Your task to perform on an android device: delete the emails in spam in the gmail app Image 0: 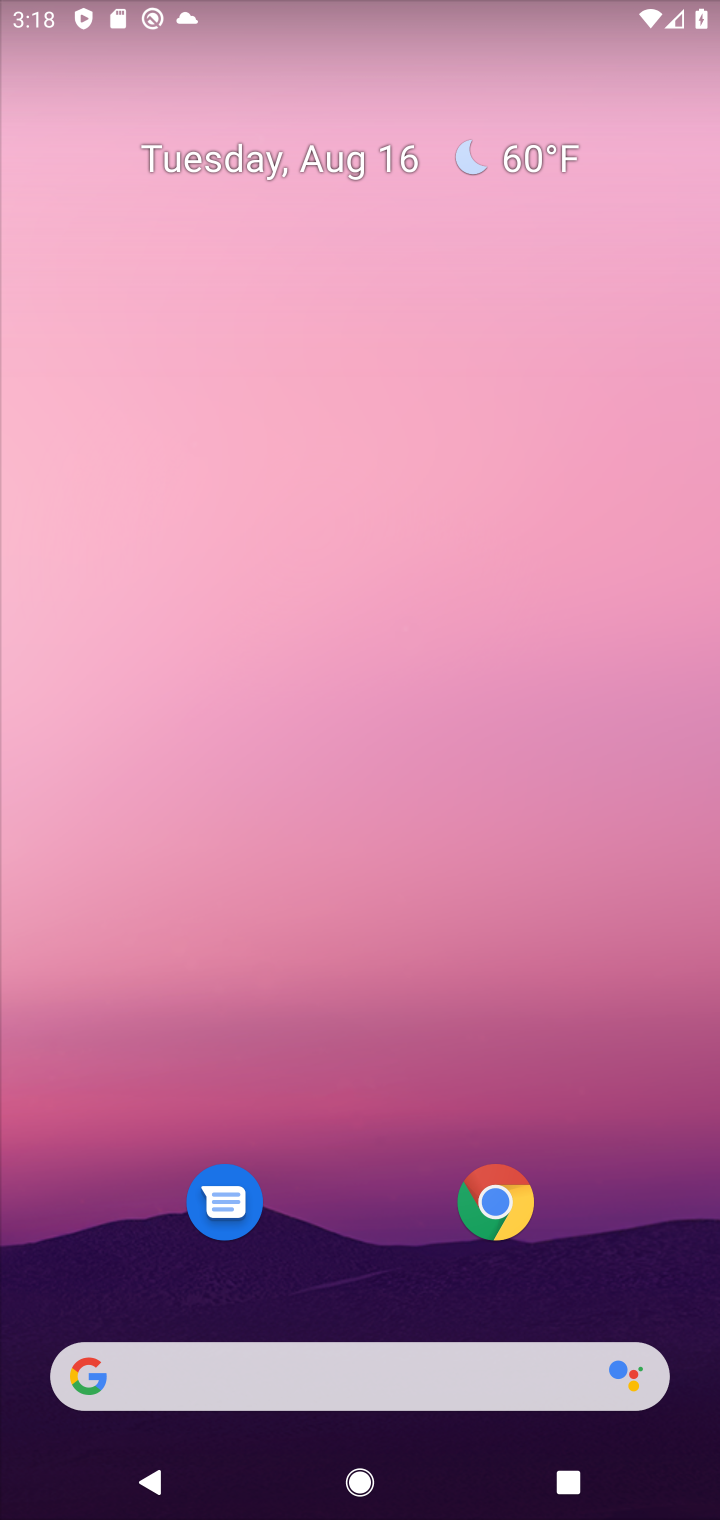
Step 0: drag from (417, 1119) to (497, 258)
Your task to perform on an android device: delete the emails in spam in the gmail app Image 1: 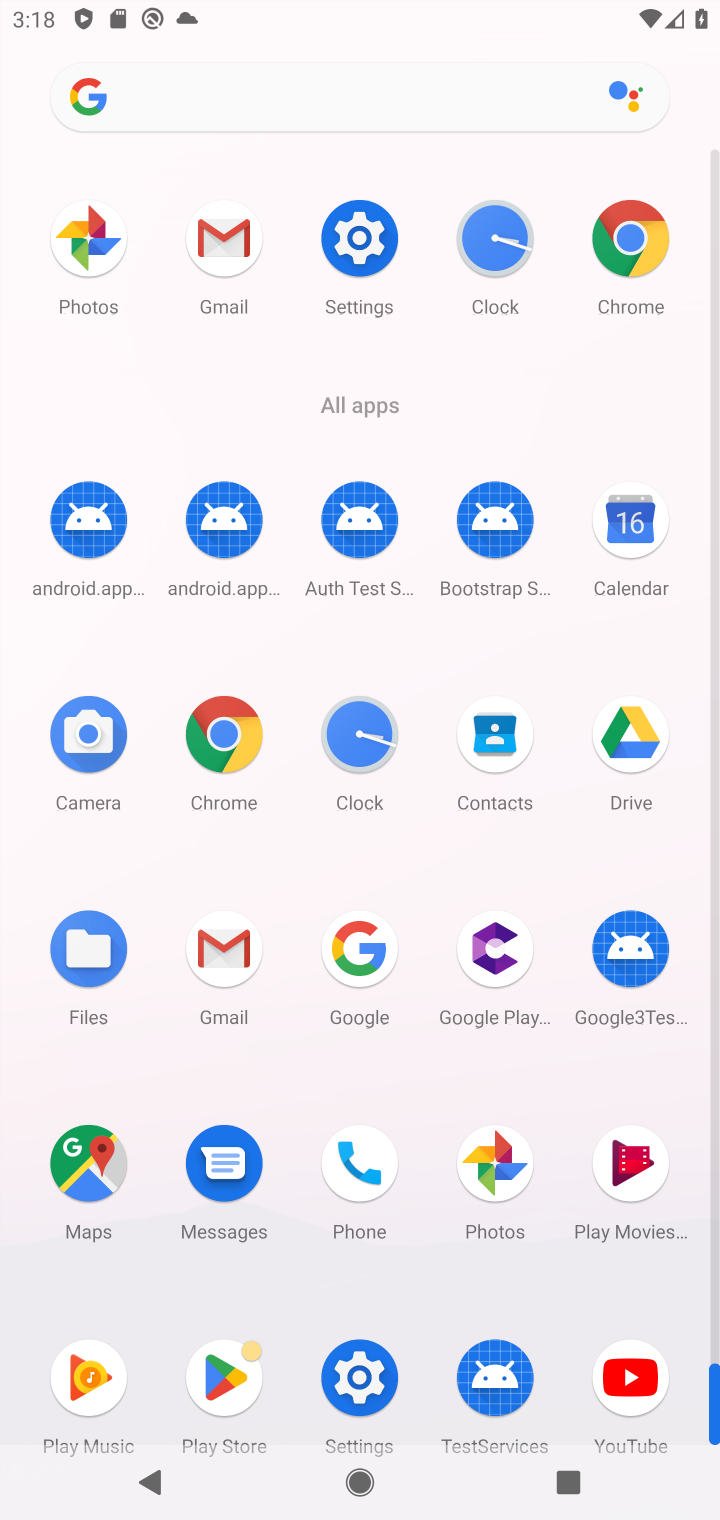
Step 1: click (217, 983)
Your task to perform on an android device: delete the emails in spam in the gmail app Image 2: 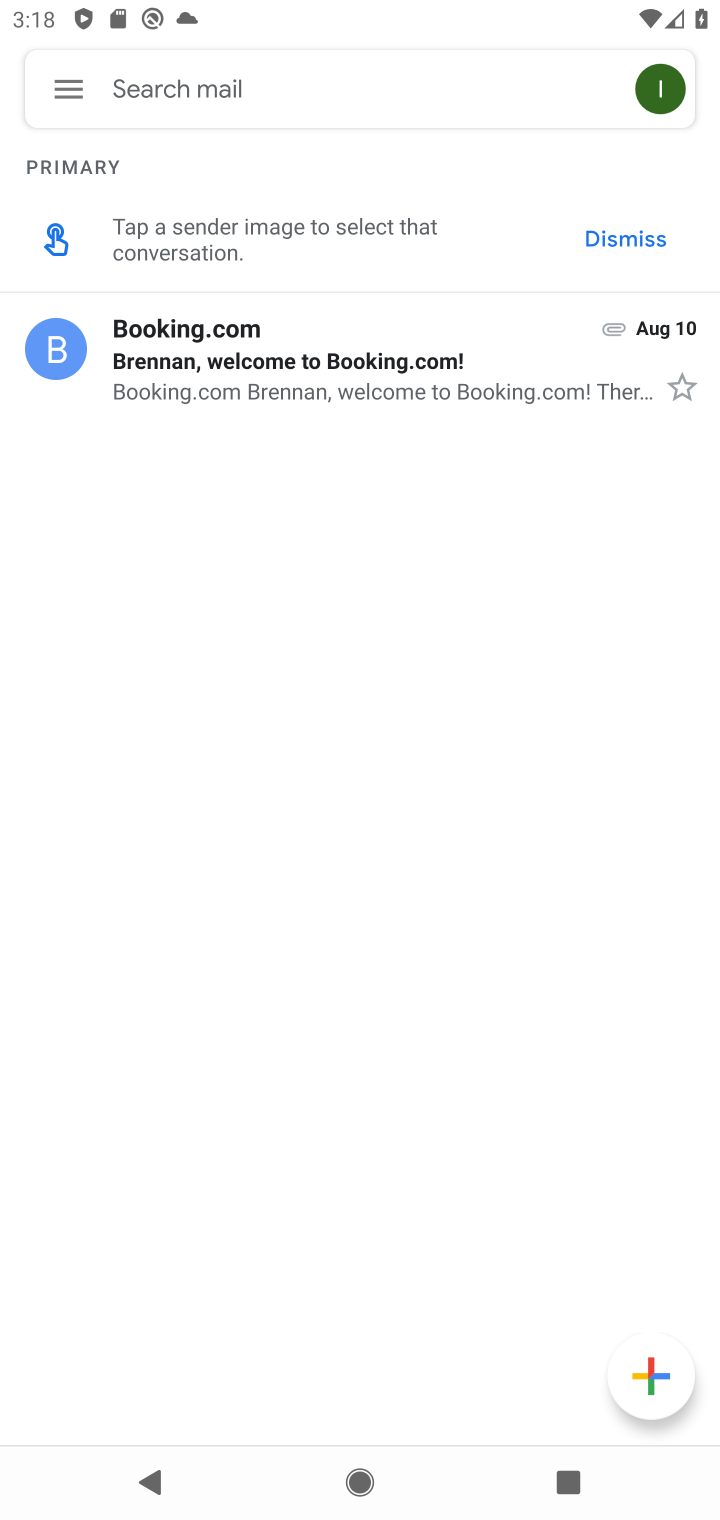
Step 2: click (48, 109)
Your task to perform on an android device: delete the emails in spam in the gmail app Image 3: 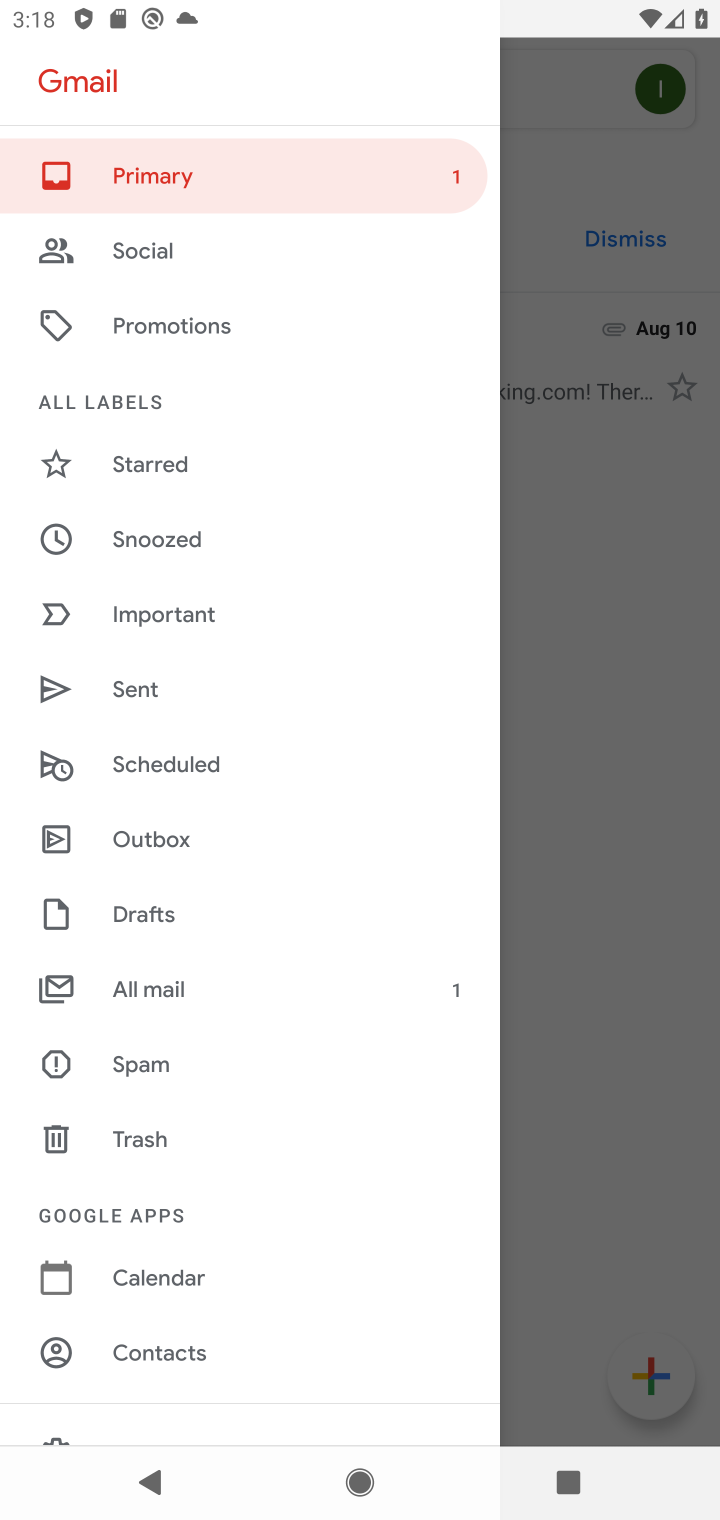
Step 3: click (133, 1064)
Your task to perform on an android device: delete the emails in spam in the gmail app Image 4: 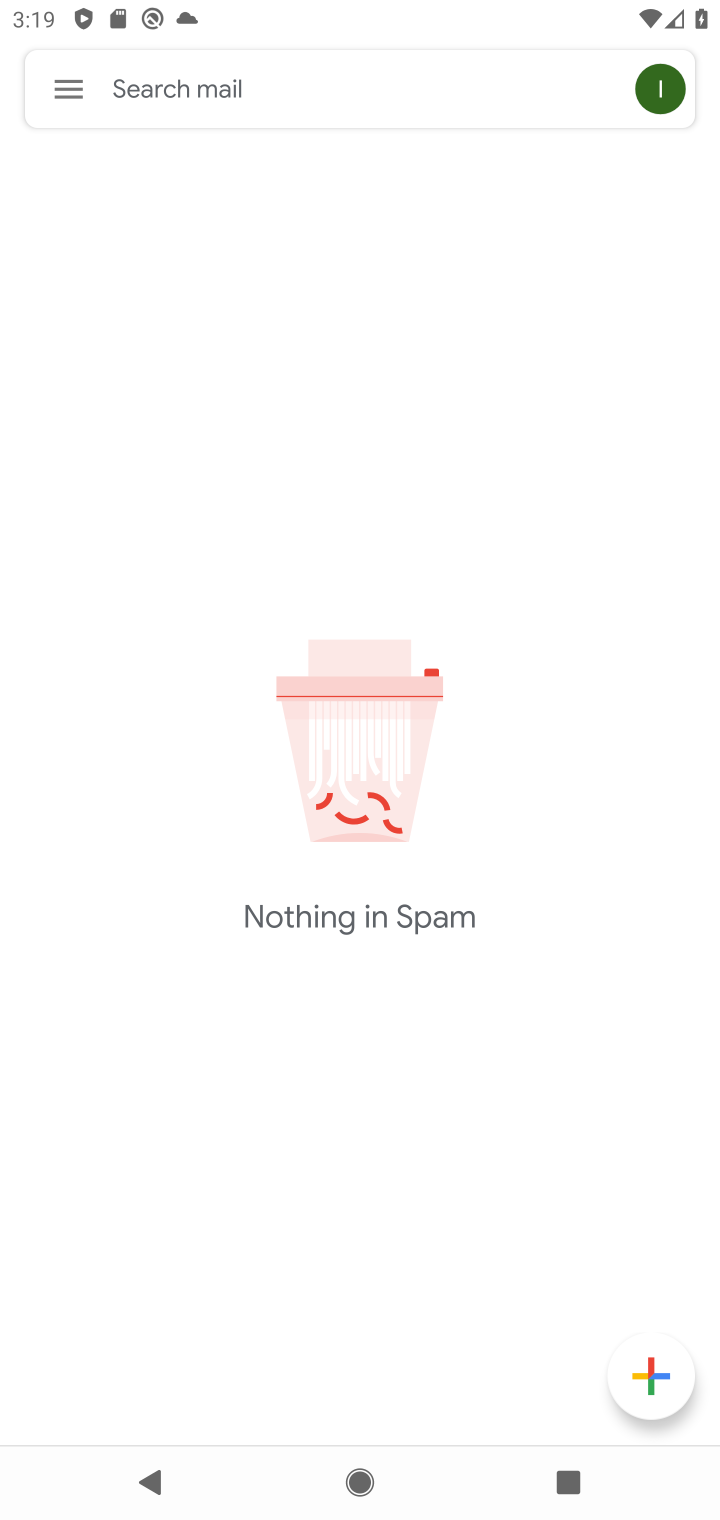
Step 4: task complete